Your task to perform on an android device: Search for seafood restaurants on Google Maps Image 0: 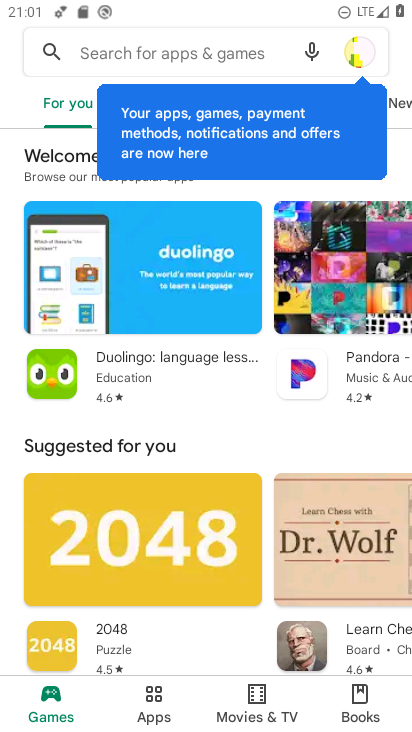
Step 0: press home button
Your task to perform on an android device: Search for seafood restaurants on Google Maps Image 1: 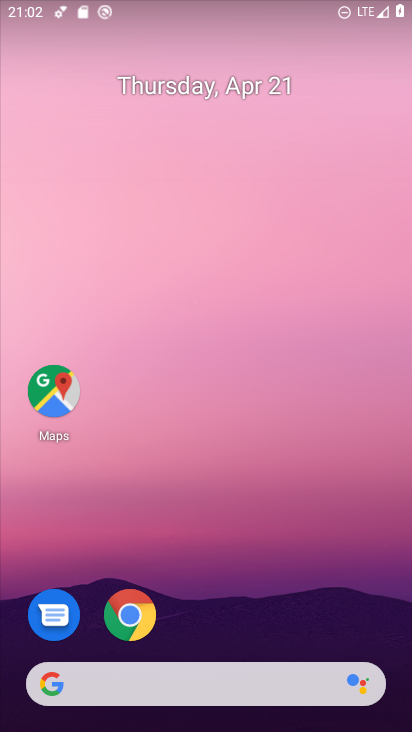
Step 1: drag from (192, 634) to (198, 12)
Your task to perform on an android device: Search for seafood restaurants on Google Maps Image 2: 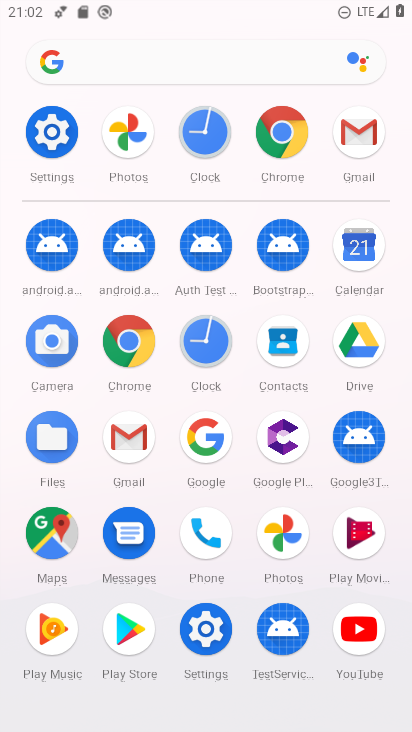
Step 2: click (66, 530)
Your task to perform on an android device: Search for seafood restaurants on Google Maps Image 3: 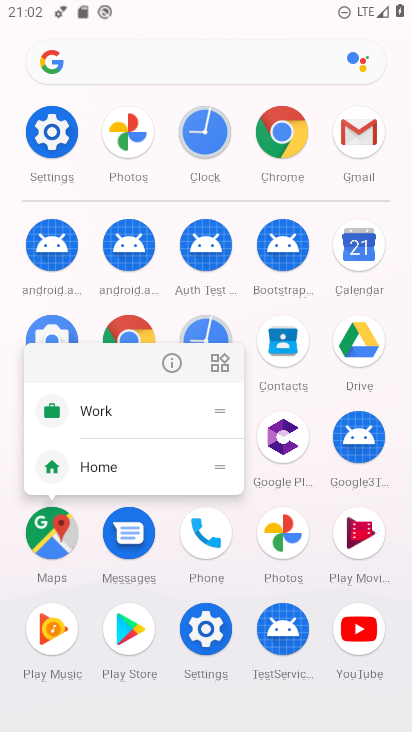
Step 3: click (175, 360)
Your task to perform on an android device: Search for seafood restaurants on Google Maps Image 4: 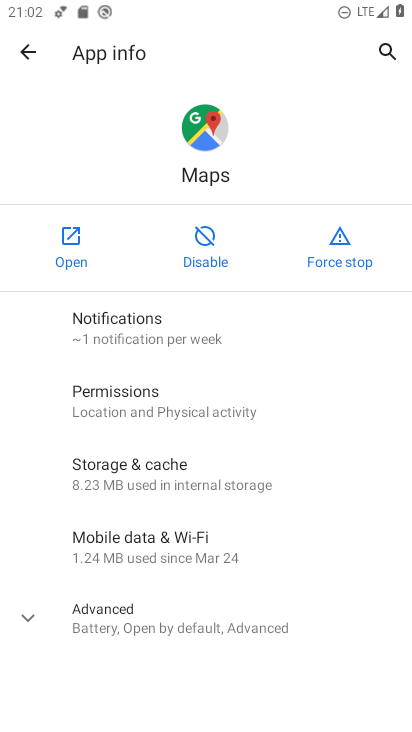
Step 4: click (76, 240)
Your task to perform on an android device: Search for seafood restaurants on Google Maps Image 5: 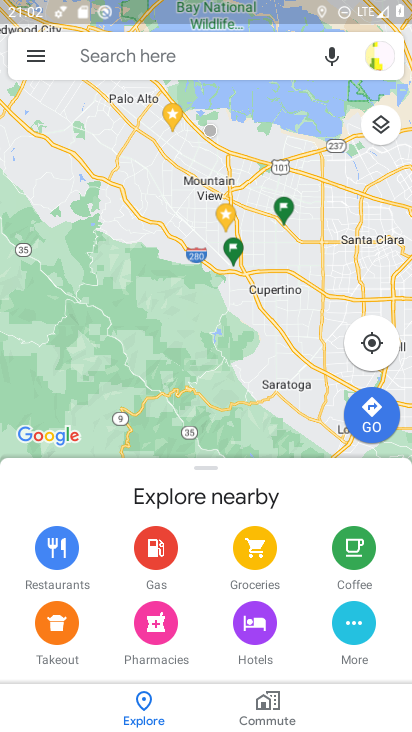
Step 5: drag from (234, 586) to (286, 270)
Your task to perform on an android device: Search for seafood restaurants on Google Maps Image 6: 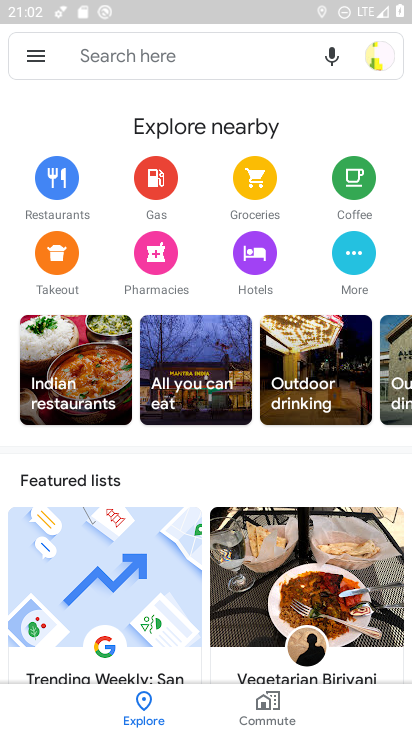
Step 6: click (195, 56)
Your task to perform on an android device: Search for seafood restaurants on Google Maps Image 7: 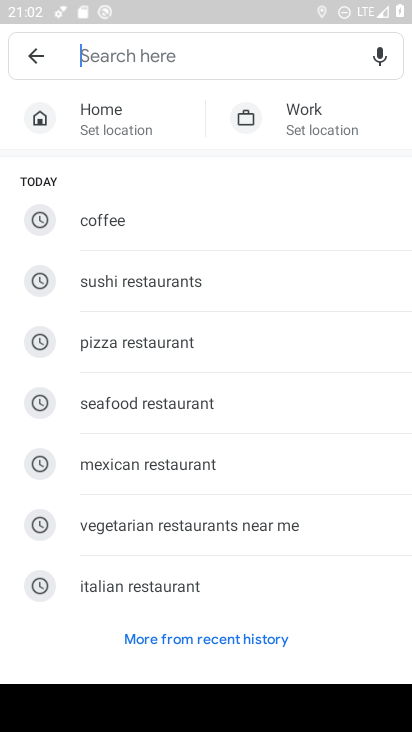
Step 7: click (166, 411)
Your task to perform on an android device: Search for seafood restaurants on Google Maps Image 8: 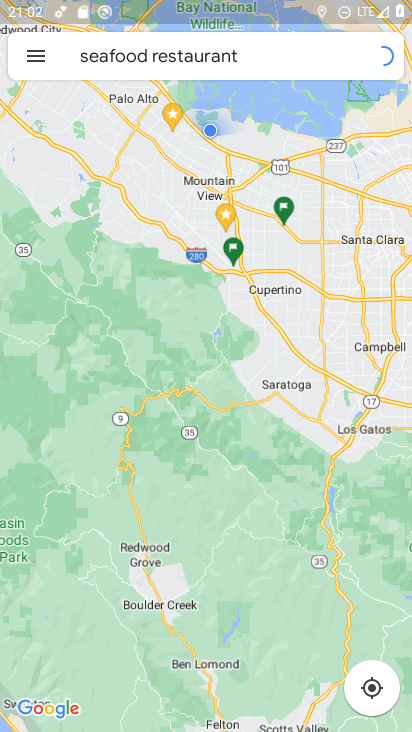
Step 8: task complete